Your task to perform on an android device: see creations saved in the google photos Image 0: 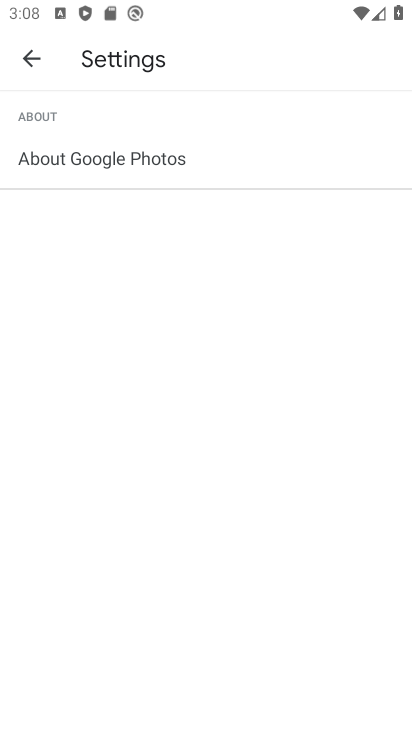
Step 0: click (40, 59)
Your task to perform on an android device: see creations saved in the google photos Image 1: 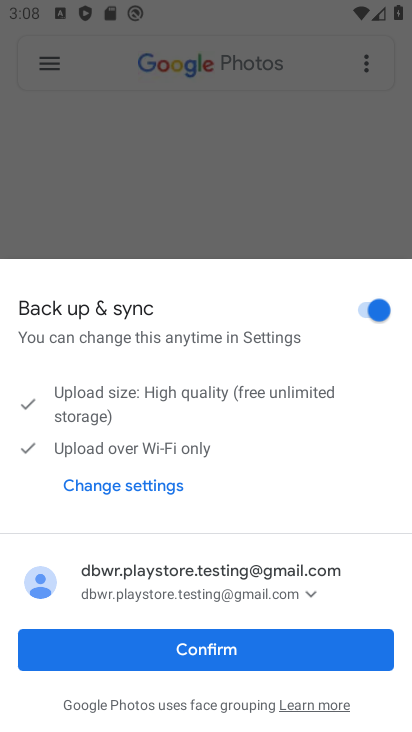
Step 1: click (186, 651)
Your task to perform on an android device: see creations saved in the google photos Image 2: 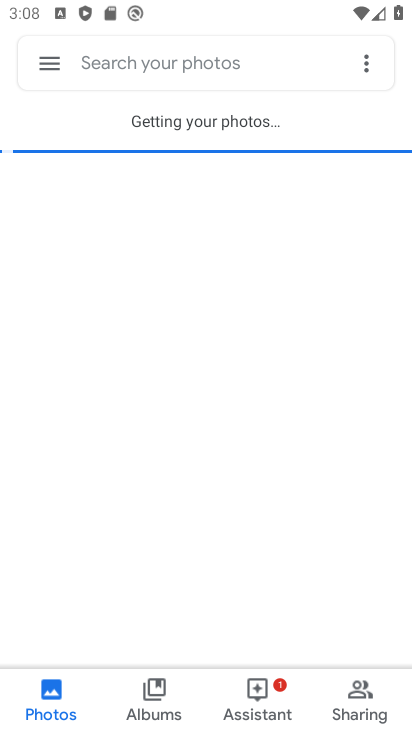
Step 2: task complete